Your task to perform on an android device: Search for lenovo thinkpad on ebay, select the first entry, add it to the cart, then select checkout. Image 0: 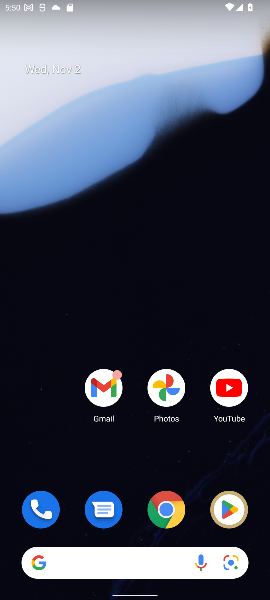
Step 0: click (114, 558)
Your task to perform on an android device: Search for lenovo thinkpad on ebay, select the first entry, add it to the cart, then select checkout. Image 1: 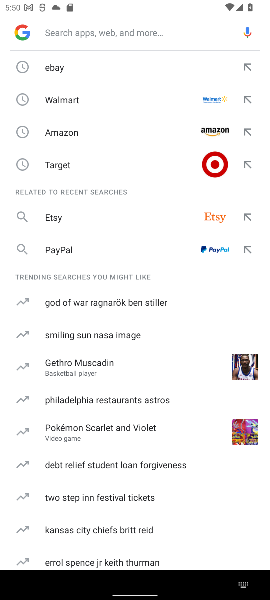
Step 1: click (63, 68)
Your task to perform on an android device: Search for lenovo thinkpad on ebay, select the first entry, add it to the cart, then select checkout. Image 2: 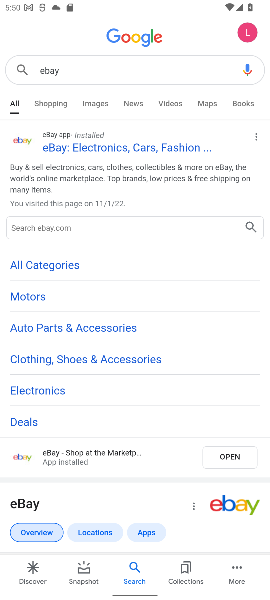
Step 2: drag from (146, 413) to (121, 281)
Your task to perform on an android device: Search for lenovo thinkpad on ebay, select the first entry, add it to the cart, then select checkout. Image 3: 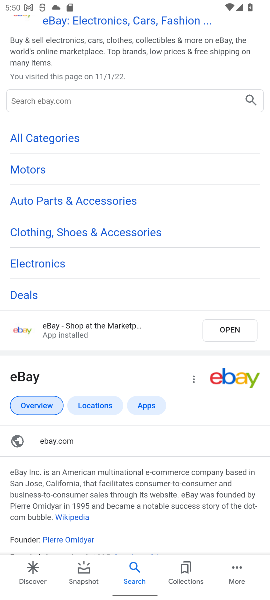
Step 3: click (52, 440)
Your task to perform on an android device: Search for lenovo thinkpad on ebay, select the first entry, add it to the cart, then select checkout. Image 4: 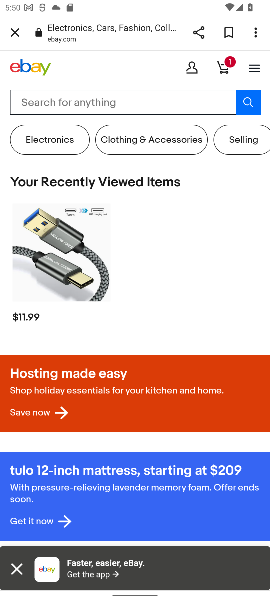
Step 4: click (84, 93)
Your task to perform on an android device: Search for lenovo thinkpad on ebay, select the first entry, add it to the cart, then select checkout. Image 5: 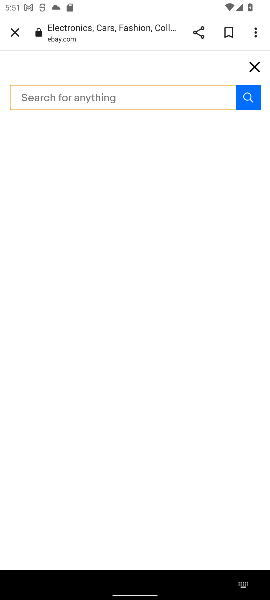
Step 5: type "lenovo thinkpad"
Your task to perform on an android device: Search for lenovo thinkpad on ebay, select the first entry, add it to the cart, then select checkout. Image 6: 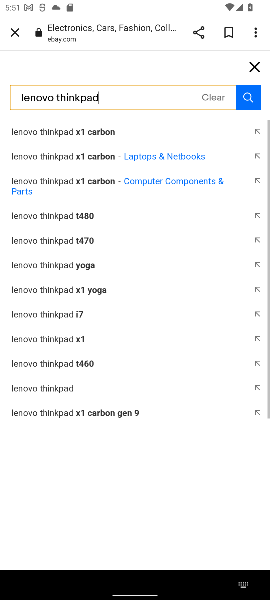
Step 6: click (48, 388)
Your task to perform on an android device: Search for lenovo thinkpad on ebay, select the first entry, add it to the cart, then select checkout. Image 7: 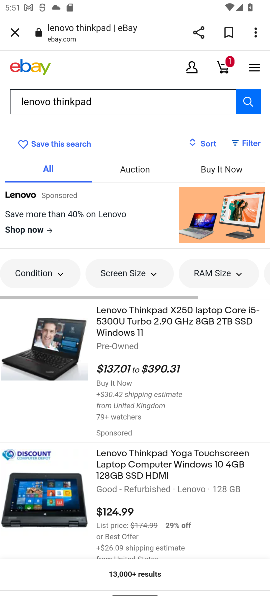
Step 7: click (153, 329)
Your task to perform on an android device: Search for lenovo thinkpad on ebay, select the first entry, add it to the cart, then select checkout. Image 8: 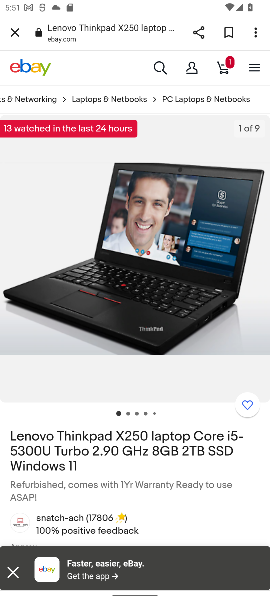
Step 8: drag from (170, 383) to (134, 249)
Your task to perform on an android device: Search for lenovo thinkpad on ebay, select the first entry, add it to the cart, then select checkout. Image 9: 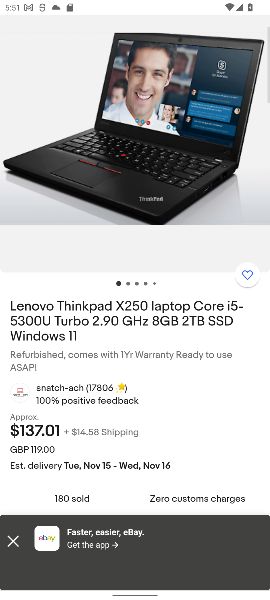
Step 9: drag from (203, 450) to (152, 235)
Your task to perform on an android device: Search for lenovo thinkpad on ebay, select the first entry, add it to the cart, then select checkout. Image 10: 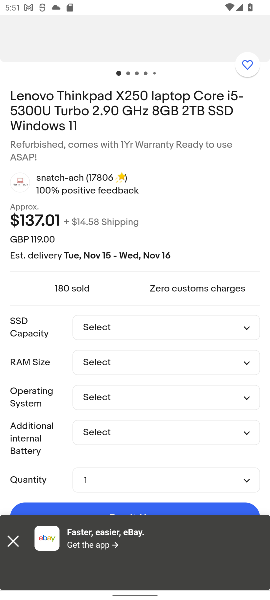
Step 10: drag from (177, 427) to (136, 241)
Your task to perform on an android device: Search for lenovo thinkpad on ebay, select the first entry, add it to the cart, then select checkout. Image 11: 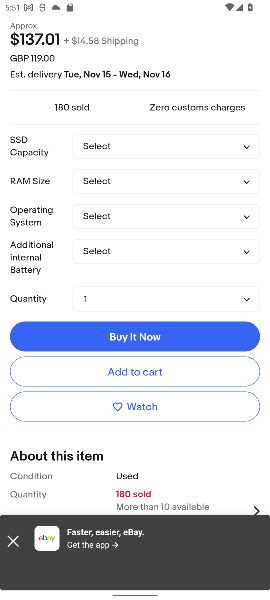
Step 11: click (151, 369)
Your task to perform on an android device: Search for lenovo thinkpad on ebay, select the first entry, add it to the cart, then select checkout. Image 12: 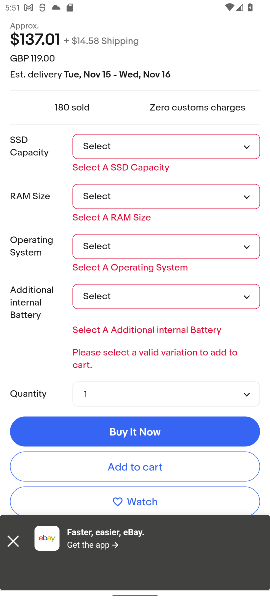
Step 12: click (236, 147)
Your task to perform on an android device: Search for lenovo thinkpad on ebay, select the first entry, add it to the cart, then select checkout. Image 13: 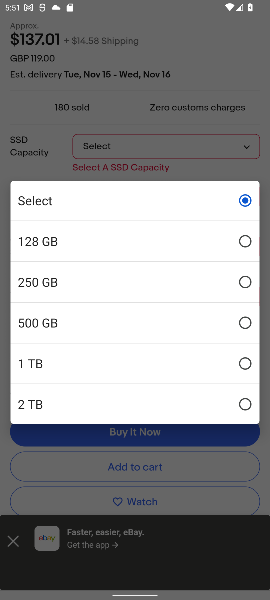
Step 13: click (152, 237)
Your task to perform on an android device: Search for lenovo thinkpad on ebay, select the first entry, add it to the cart, then select checkout. Image 14: 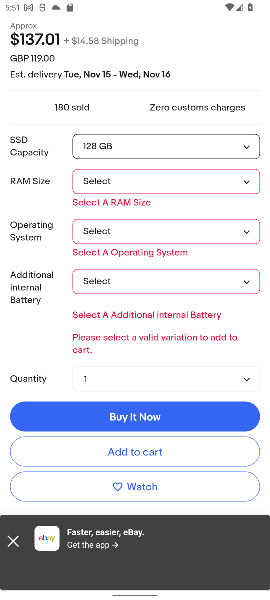
Step 14: click (203, 184)
Your task to perform on an android device: Search for lenovo thinkpad on ebay, select the first entry, add it to the cart, then select checkout. Image 15: 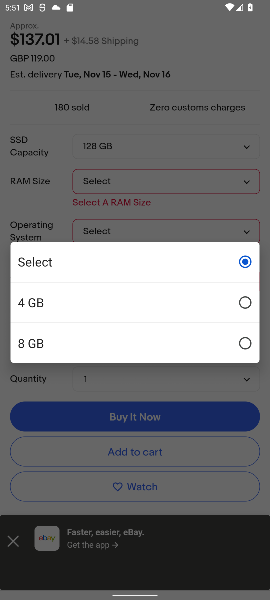
Step 15: click (139, 300)
Your task to perform on an android device: Search for lenovo thinkpad on ebay, select the first entry, add it to the cart, then select checkout. Image 16: 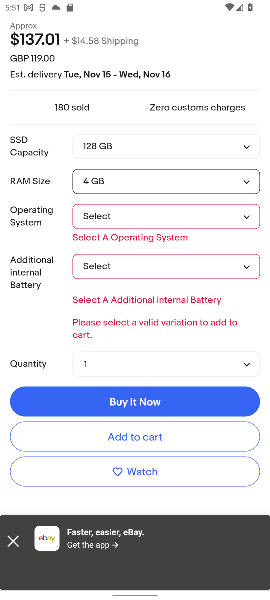
Step 16: click (183, 270)
Your task to perform on an android device: Search for lenovo thinkpad on ebay, select the first entry, add it to the cart, then select checkout. Image 17: 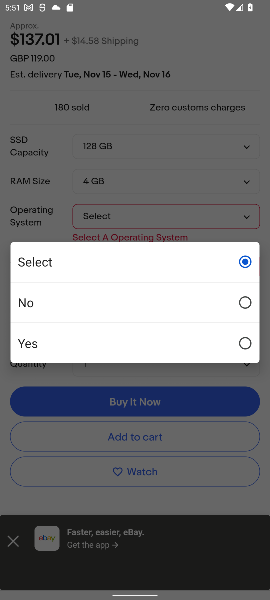
Step 17: click (251, 348)
Your task to perform on an android device: Search for lenovo thinkpad on ebay, select the first entry, add it to the cart, then select checkout. Image 18: 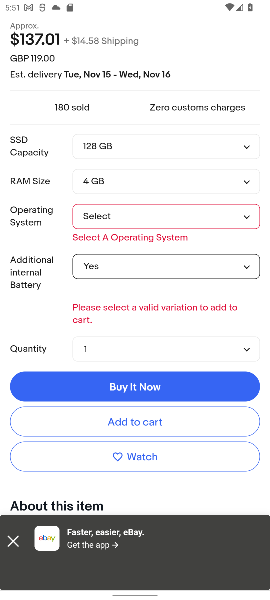
Step 18: click (239, 214)
Your task to perform on an android device: Search for lenovo thinkpad on ebay, select the first entry, add it to the cart, then select checkout. Image 19: 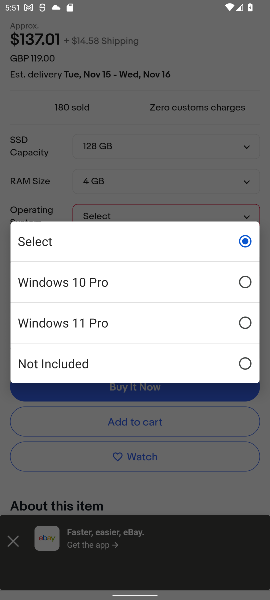
Step 19: click (204, 328)
Your task to perform on an android device: Search for lenovo thinkpad on ebay, select the first entry, add it to the cart, then select checkout. Image 20: 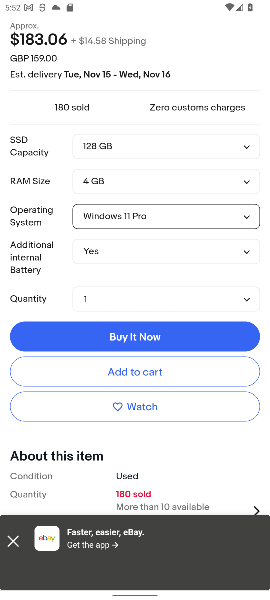
Step 20: click (155, 368)
Your task to perform on an android device: Search for lenovo thinkpad on ebay, select the first entry, add it to the cart, then select checkout. Image 21: 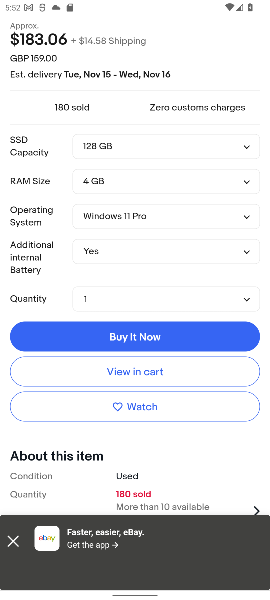
Step 21: click (116, 367)
Your task to perform on an android device: Search for lenovo thinkpad on ebay, select the first entry, add it to the cart, then select checkout. Image 22: 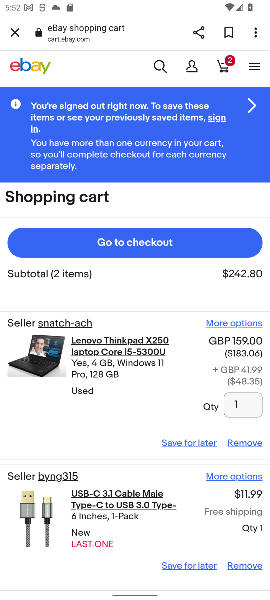
Step 22: click (158, 241)
Your task to perform on an android device: Search for lenovo thinkpad on ebay, select the first entry, add it to the cart, then select checkout. Image 23: 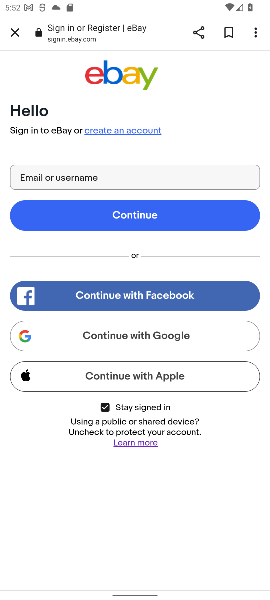
Step 23: task complete